Your task to perform on an android device: turn off smart reply in the gmail app Image 0: 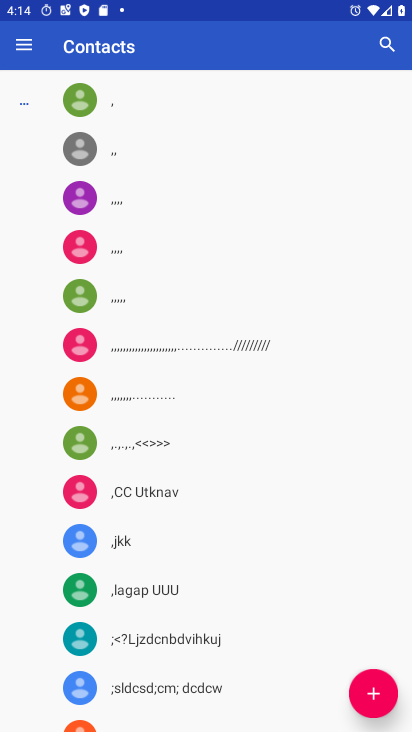
Step 0: press home button
Your task to perform on an android device: turn off smart reply in the gmail app Image 1: 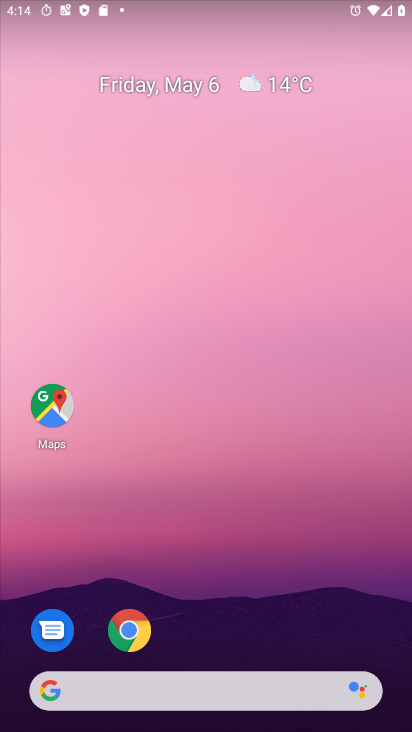
Step 1: drag from (175, 652) to (185, 36)
Your task to perform on an android device: turn off smart reply in the gmail app Image 2: 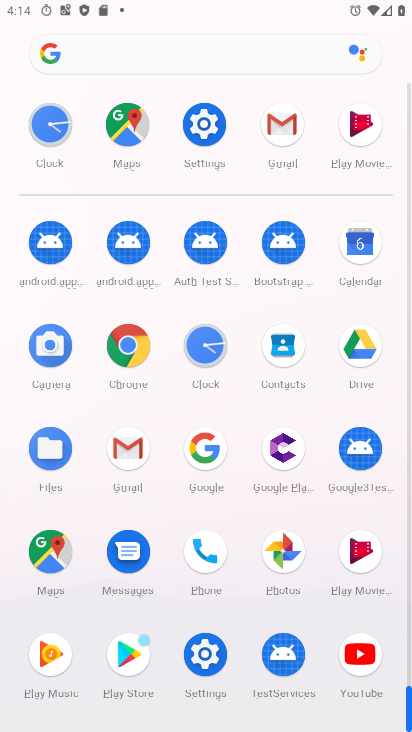
Step 2: click (271, 126)
Your task to perform on an android device: turn off smart reply in the gmail app Image 3: 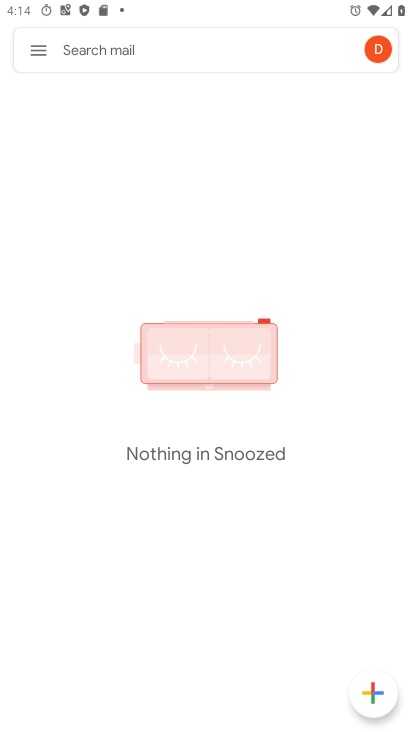
Step 3: click (43, 57)
Your task to perform on an android device: turn off smart reply in the gmail app Image 4: 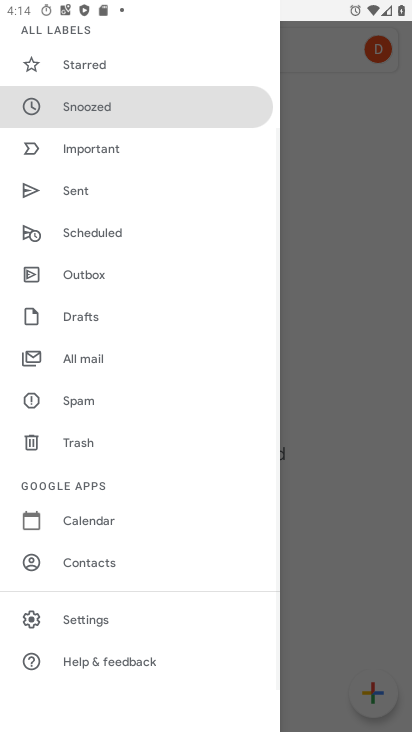
Step 4: click (149, 639)
Your task to perform on an android device: turn off smart reply in the gmail app Image 5: 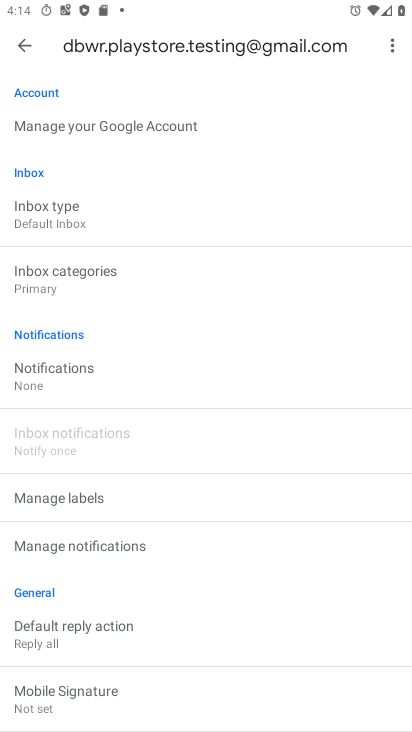
Step 5: drag from (149, 639) to (204, 134)
Your task to perform on an android device: turn off smart reply in the gmail app Image 6: 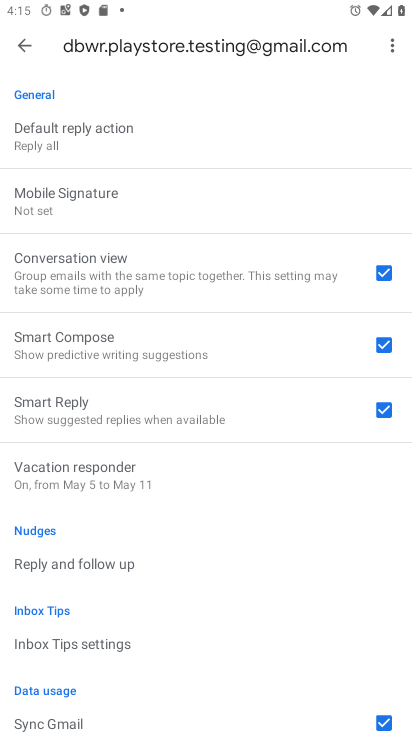
Step 6: drag from (175, 495) to (191, 334)
Your task to perform on an android device: turn off smart reply in the gmail app Image 7: 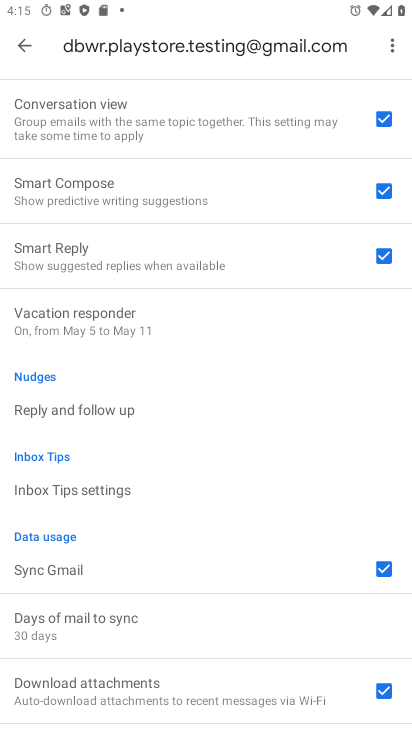
Step 7: click (381, 260)
Your task to perform on an android device: turn off smart reply in the gmail app Image 8: 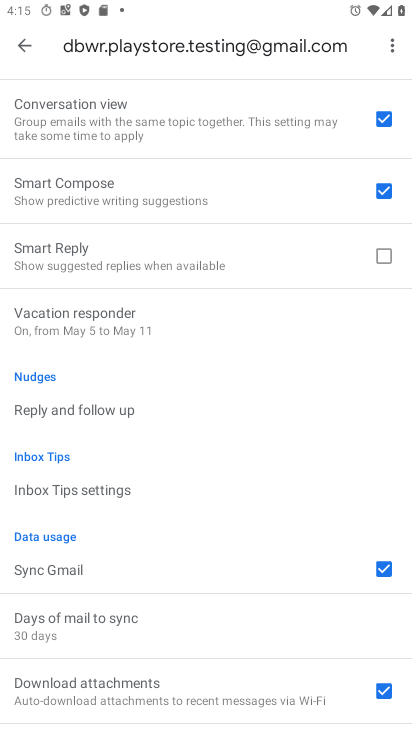
Step 8: task complete